Your task to perform on an android device: open app "Indeed Job Search" (install if not already installed) and enter user name: "quixotic@inbox.com" and password: "microphones" Image 0: 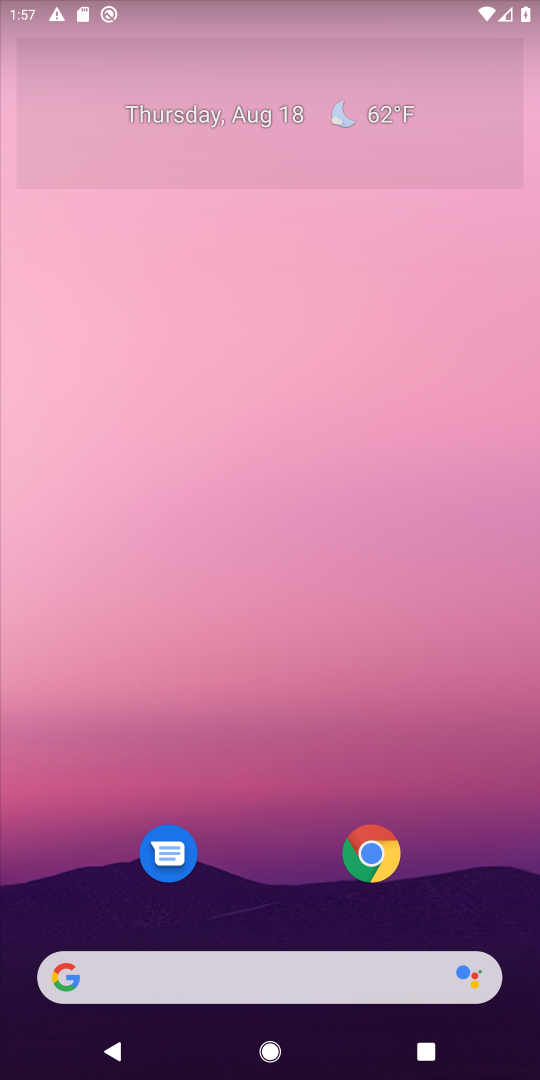
Step 0: drag from (497, 868) to (208, 37)
Your task to perform on an android device: open app "Indeed Job Search" (install if not already installed) and enter user name: "quixotic@inbox.com" and password: "microphones" Image 1: 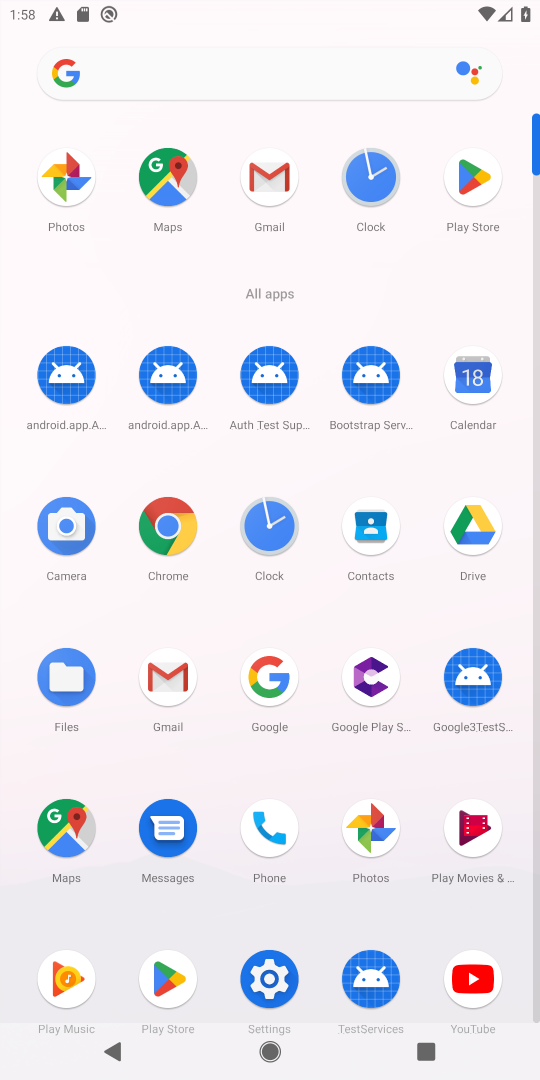
Step 1: click (473, 192)
Your task to perform on an android device: open app "Indeed Job Search" (install if not already installed) and enter user name: "quixotic@inbox.com" and password: "microphones" Image 2: 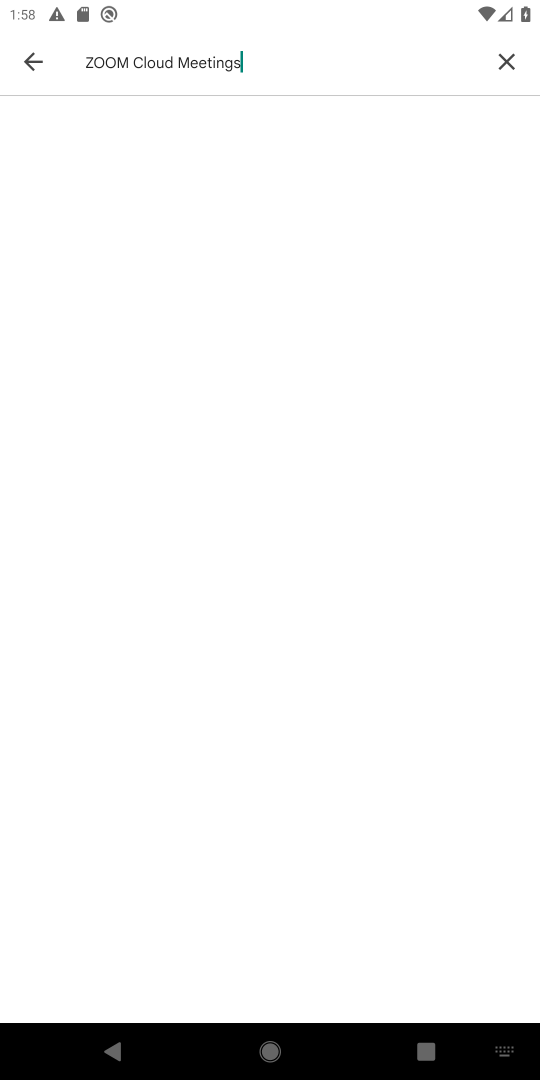
Step 2: click (509, 58)
Your task to perform on an android device: open app "Indeed Job Search" (install if not already installed) and enter user name: "quixotic@inbox.com" and password: "microphones" Image 3: 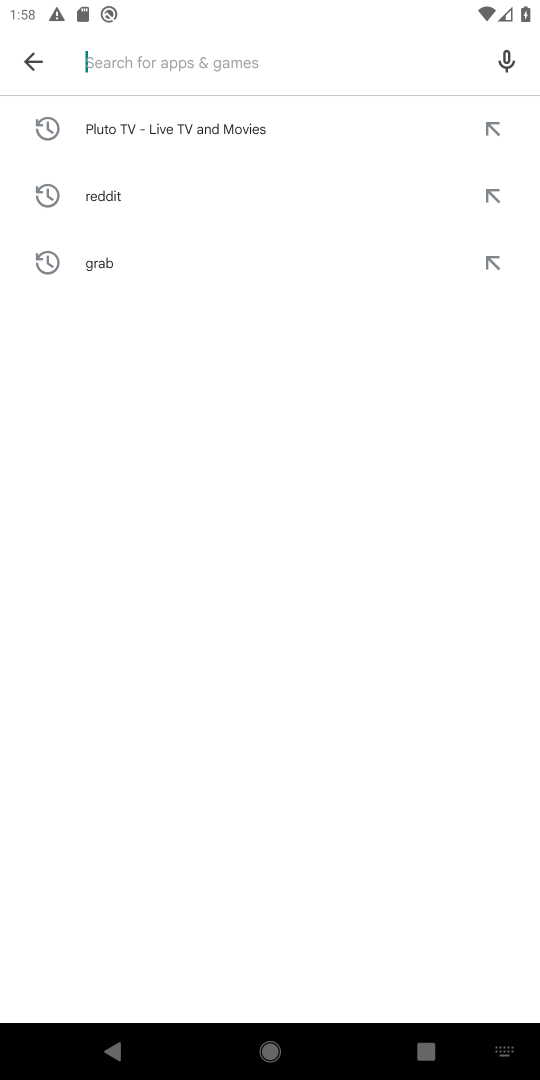
Step 3: type "Indeed Job Search"
Your task to perform on an android device: open app "Indeed Job Search" (install if not already installed) and enter user name: "quixotic@inbox.com" and password: "microphones" Image 4: 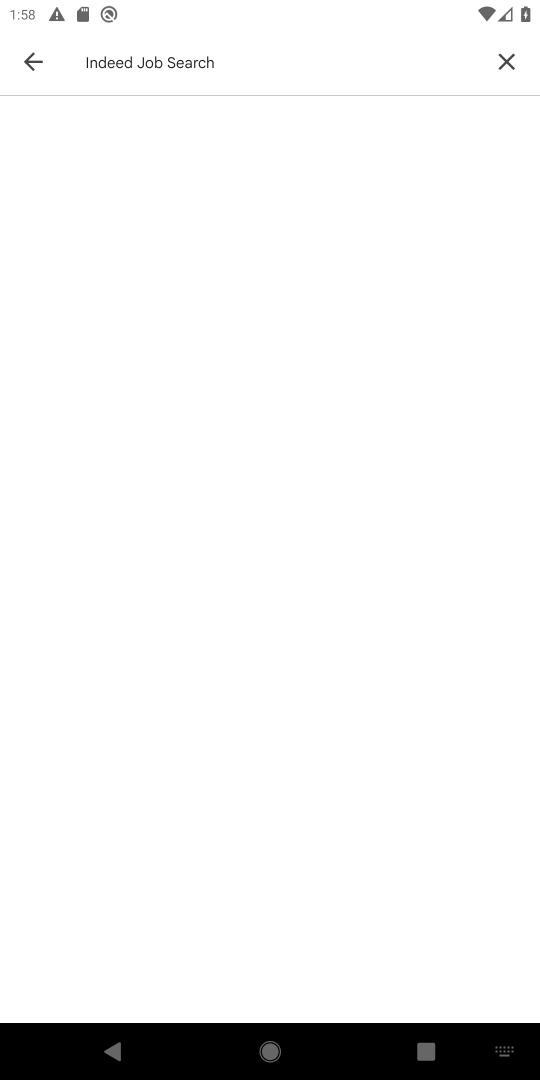
Step 4: task complete